Your task to perform on an android device: Go to Wikipedia Image 0: 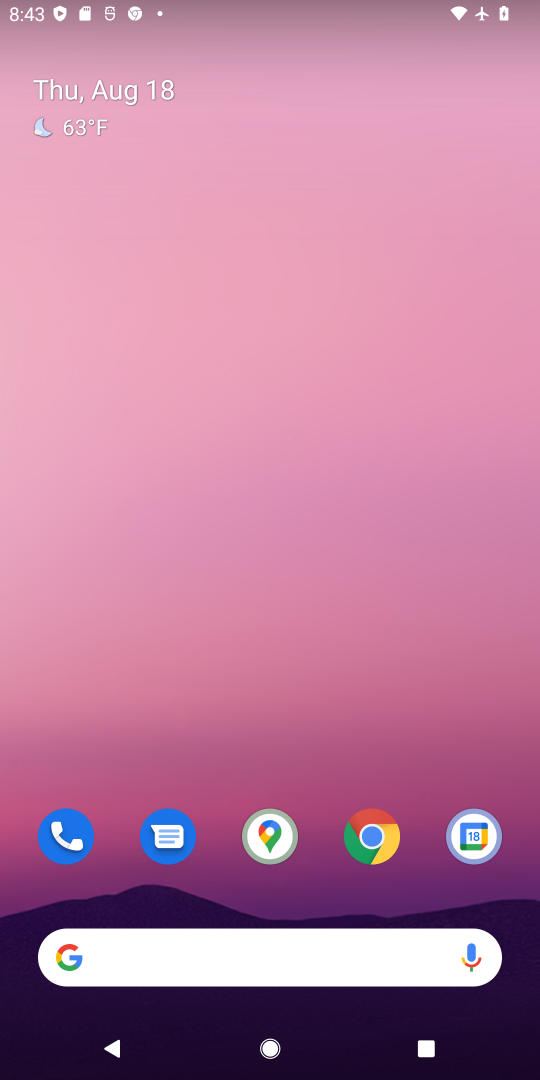
Step 0: drag from (282, 726) to (281, 1)
Your task to perform on an android device: Go to Wikipedia Image 1: 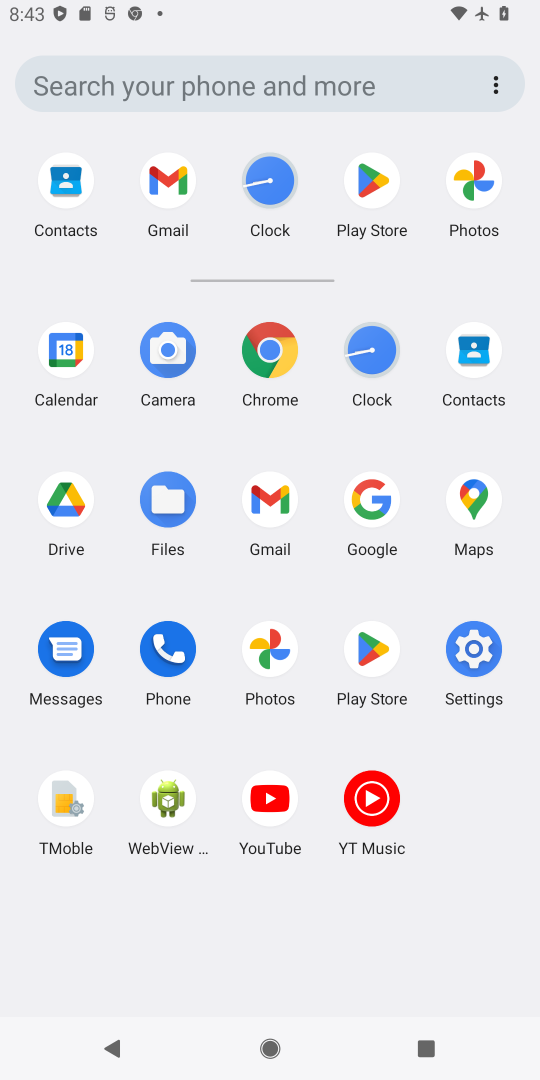
Step 1: click (271, 353)
Your task to perform on an android device: Go to Wikipedia Image 2: 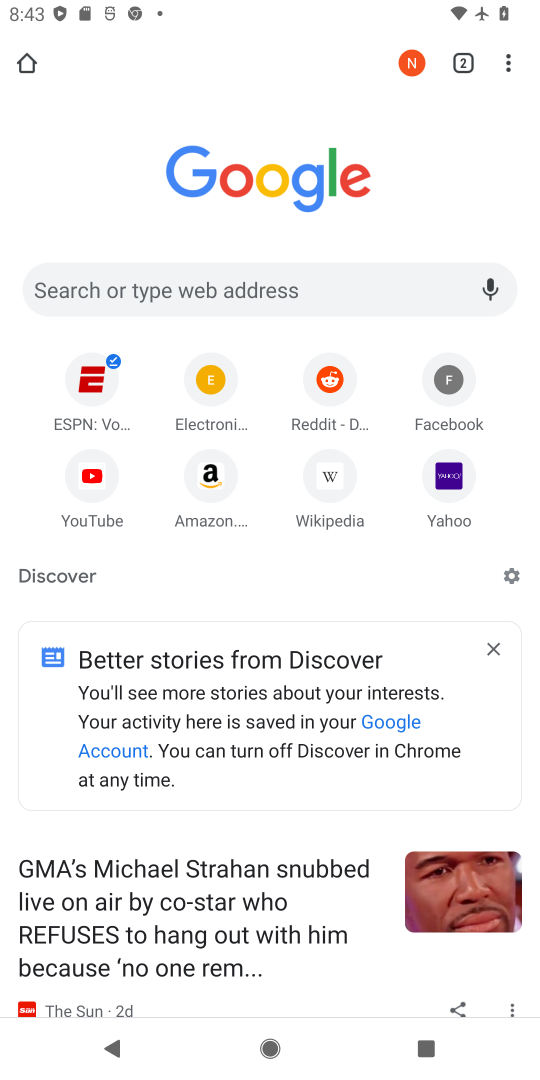
Step 2: click (314, 492)
Your task to perform on an android device: Go to Wikipedia Image 3: 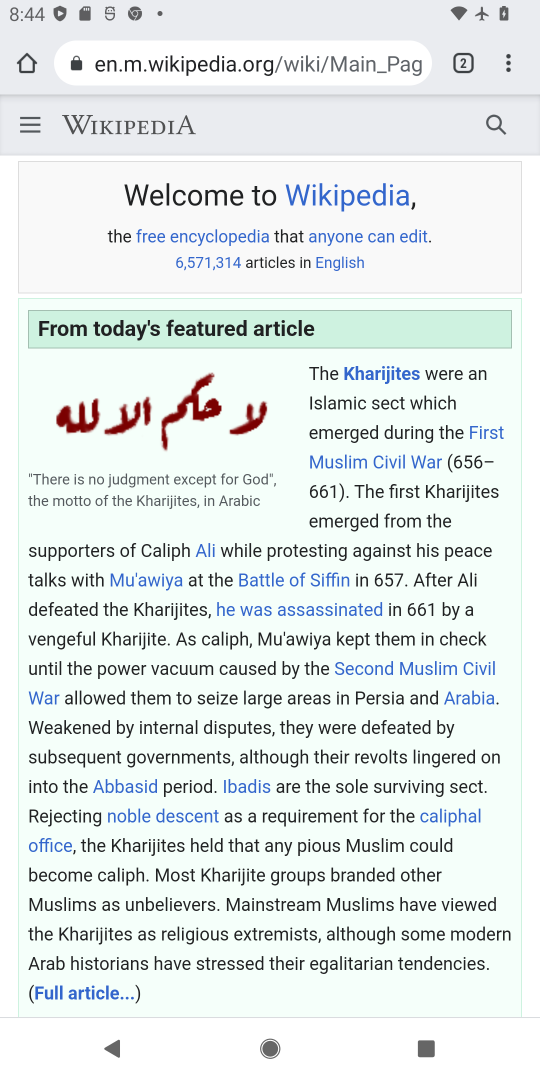
Step 3: task complete